Your task to perform on an android device: check data usage Image 0: 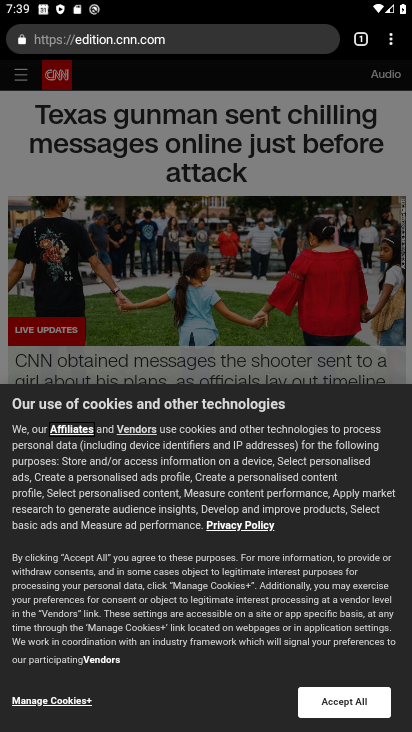
Step 0: press home button
Your task to perform on an android device: check data usage Image 1: 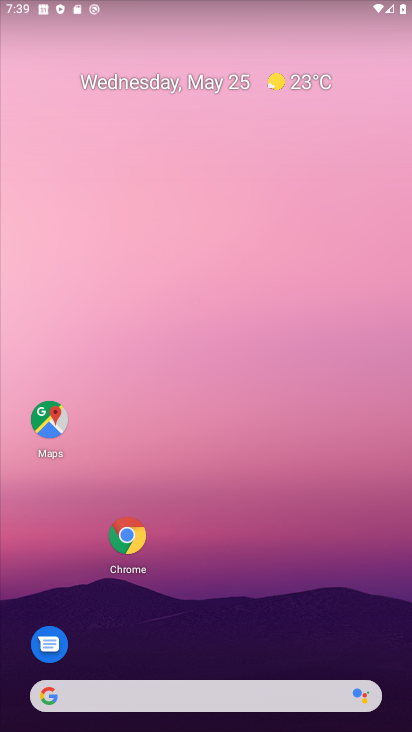
Step 1: drag from (201, 688) to (89, 104)
Your task to perform on an android device: check data usage Image 2: 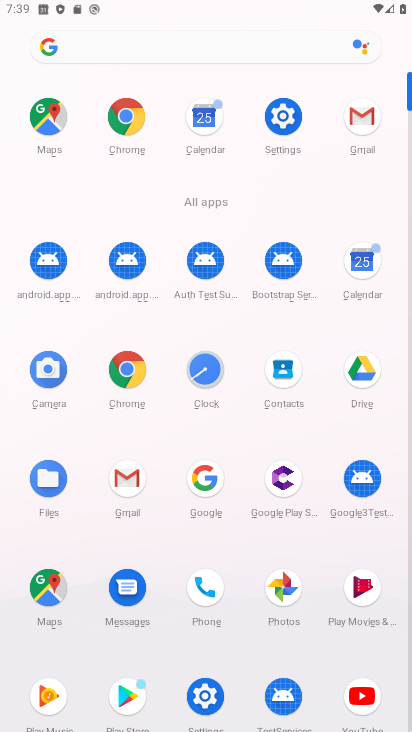
Step 2: click (201, 691)
Your task to perform on an android device: check data usage Image 3: 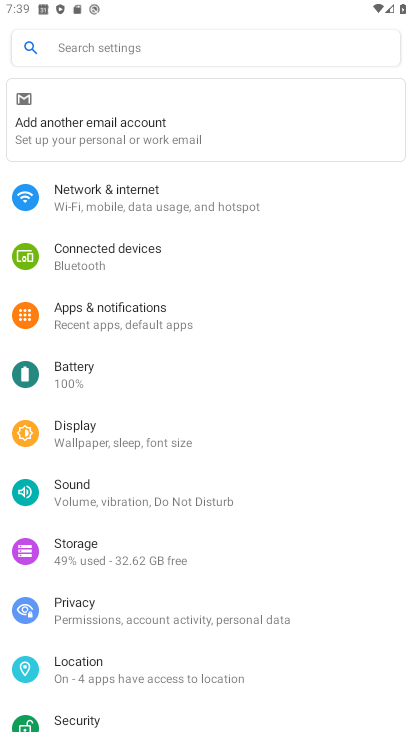
Step 3: click (115, 196)
Your task to perform on an android device: check data usage Image 4: 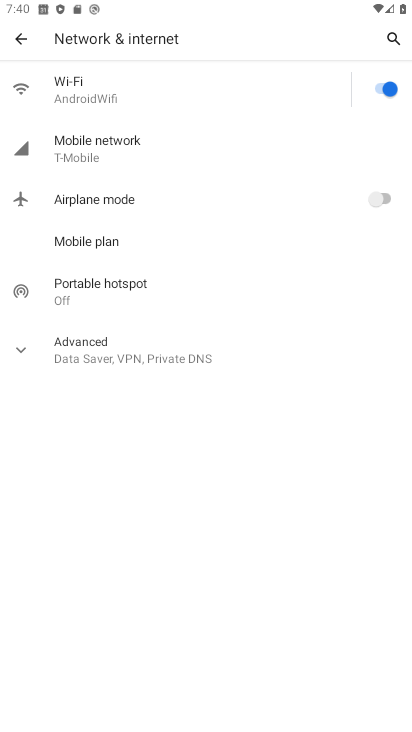
Step 4: click (126, 151)
Your task to perform on an android device: check data usage Image 5: 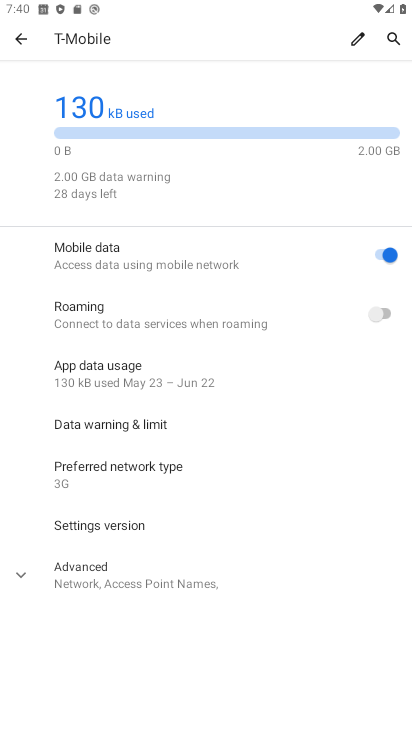
Step 5: task complete